Your task to perform on an android device: Clear all items from cart on bestbuy.com. Add "razer blade" to the cart on bestbuy.com Image 0: 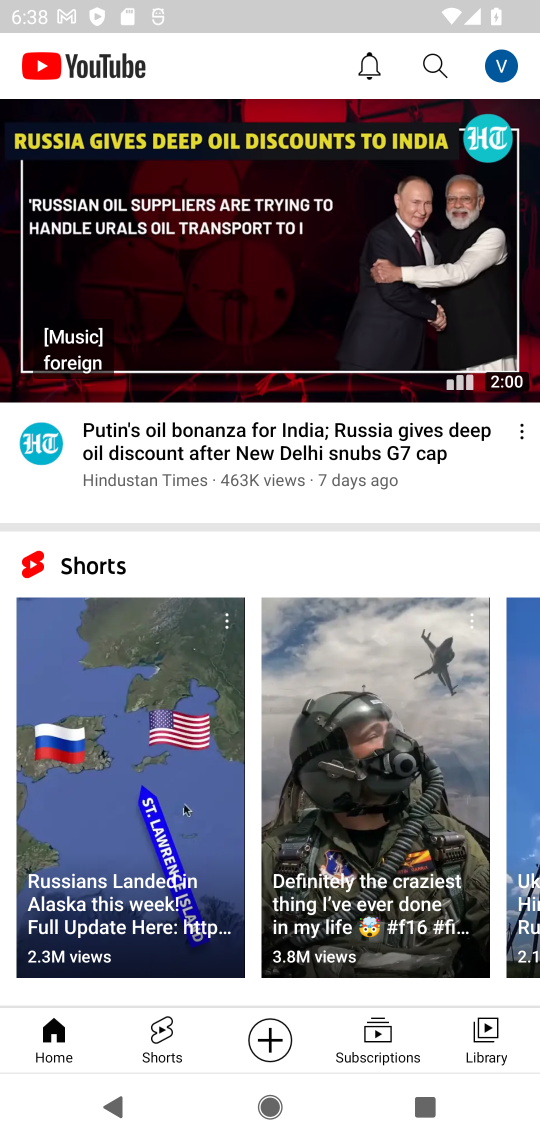
Step 0: press home button
Your task to perform on an android device: Clear all items from cart on bestbuy.com. Add "razer blade" to the cart on bestbuy.com Image 1: 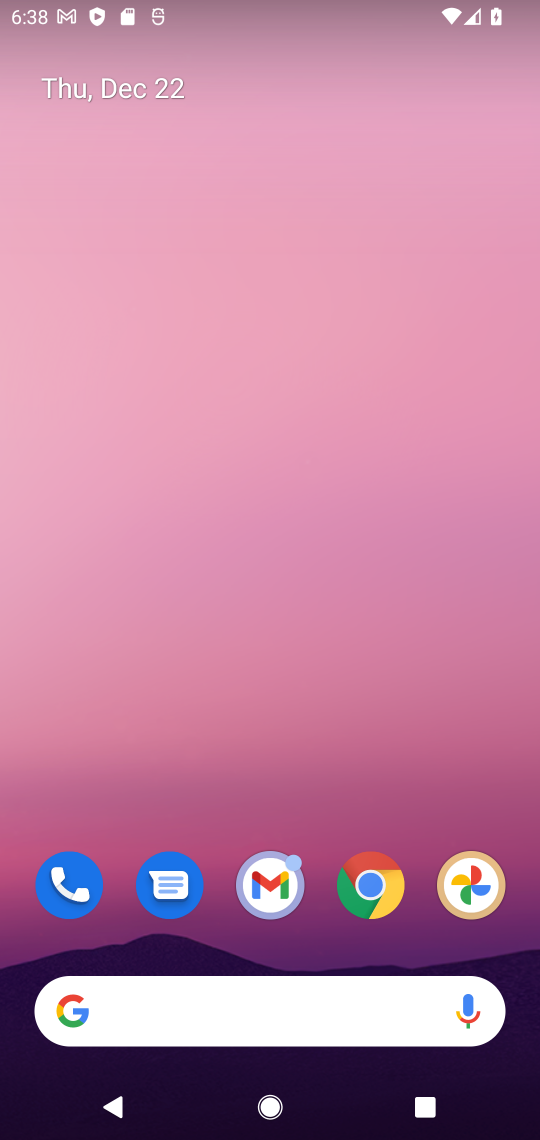
Step 1: click (375, 892)
Your task to perform on an android device: Clear all items from cart on bestbuy.com. Add "razer blade" to the cart on bestbuy.com Image 2: 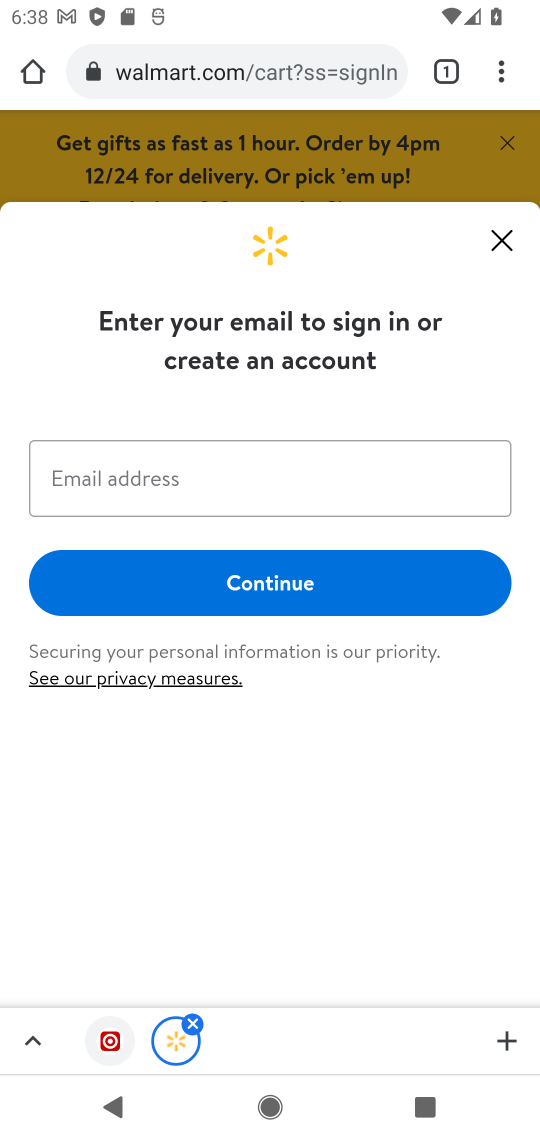
Step 2: click (191, 66)
Your task to perform on an android device: Clear all items from cart on bestbuy.com. Add "razer blade" to the cart on bestbuy.com Image 3: 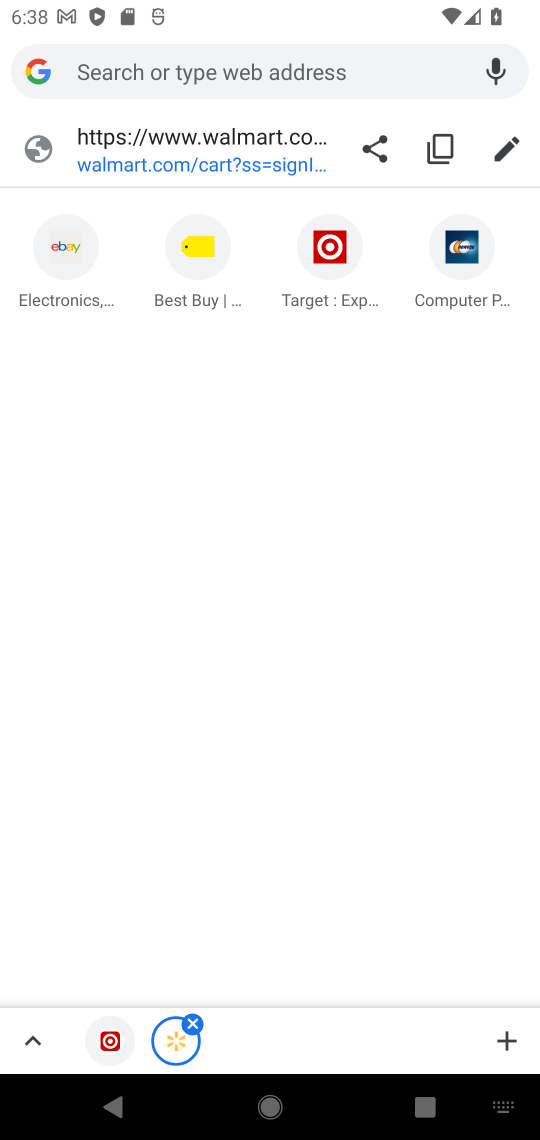
Step 3: click (181, 265)
Your task to perform on an android device: Clear all items from cart on bestbuy.com. Add "razer blade" to the cart on bestbuy.com Image 4: 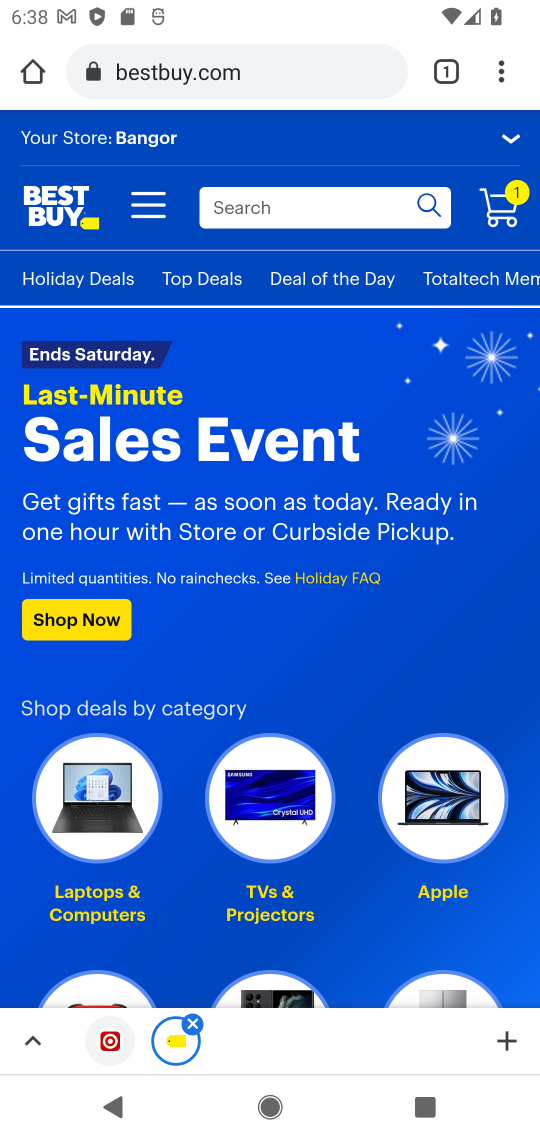
Step 4: click (496, 211)
Your task to perform on an android device: Clear all items from cart on bestbuy.com. Add "razer blade" to the cart on bestbuy.com Image 5: 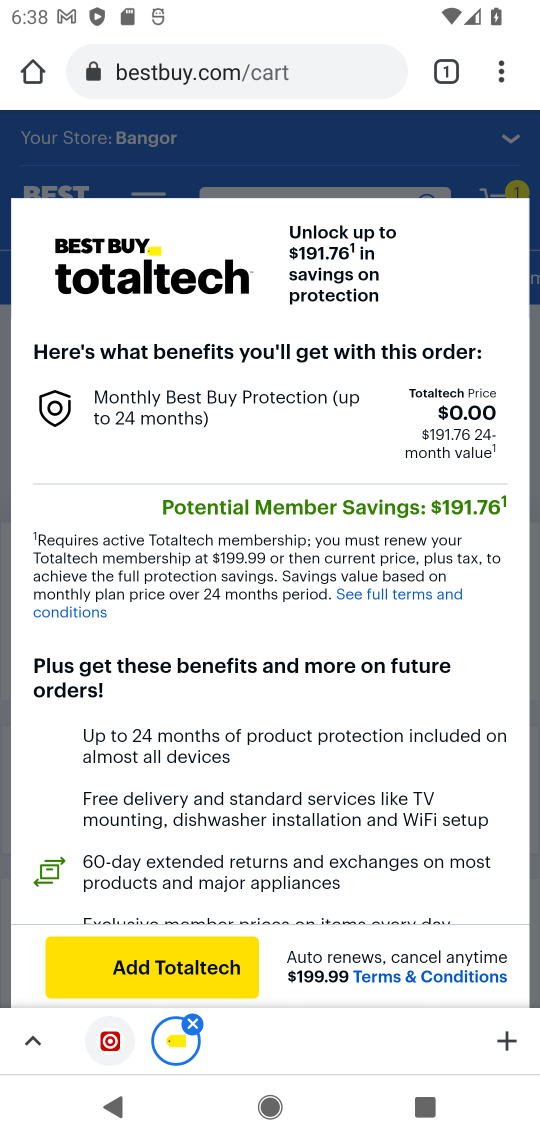
Step 5: drag from (227, 754) to (227, 546)
Your task to perform on an android device: Clear all items from cart on bestbuy.com. Add "razer blade" to the cart on bestbuy.com Image 6: 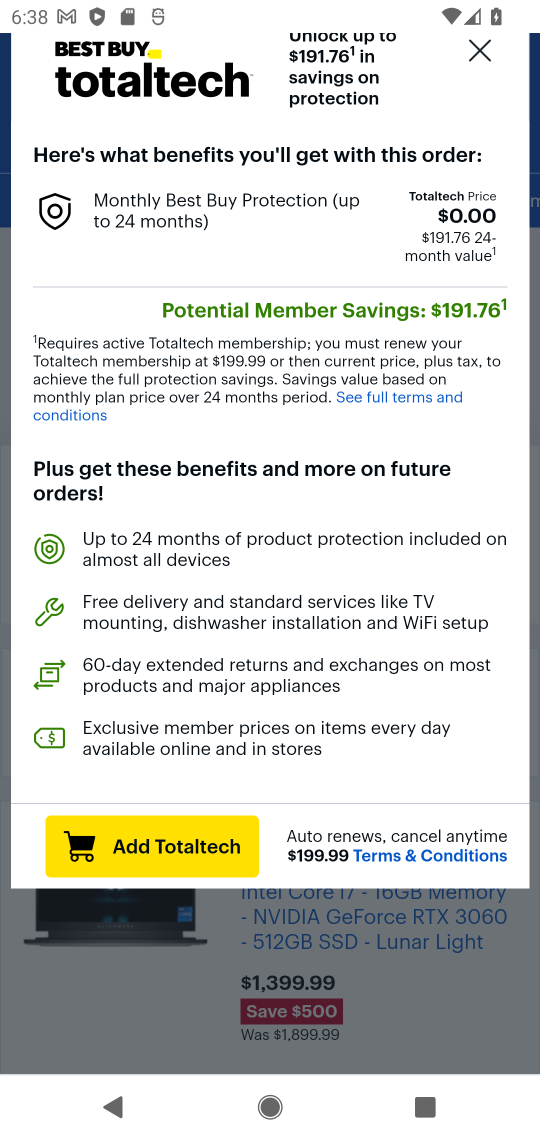
Step 6: click (473, 56)
Your task to perform on an android device: Clear all items from cart on bestbuy.com. Add "razer blade" to the cart on bestbuy.com Image 7: 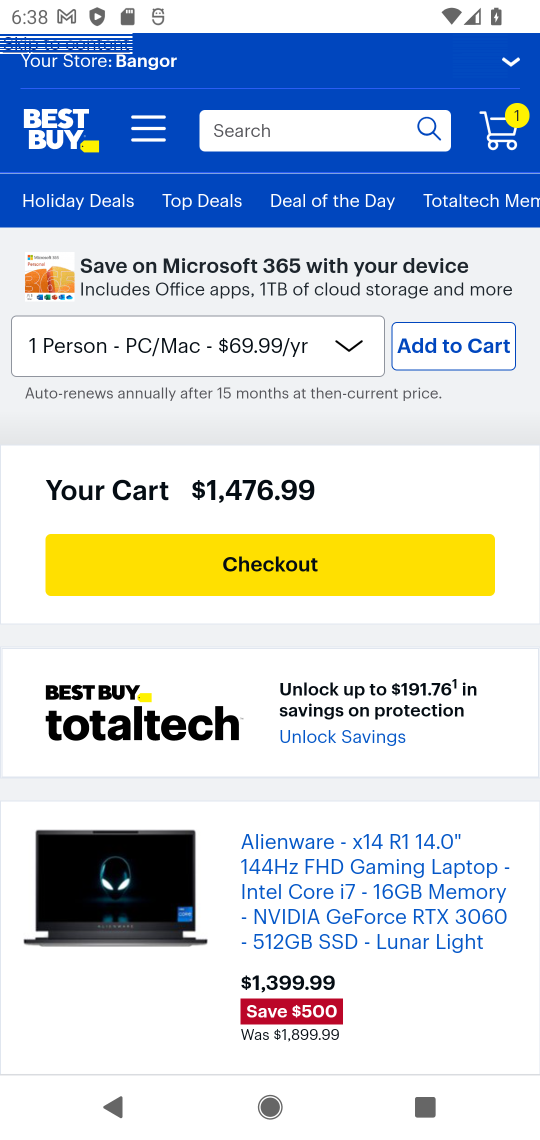
Step 7: drag from (308, 729) to (292, 341)
Your task to perform on an android device: Clear all items from cart on bestbuy.com. Add "razer blade" to the cart on bestbuy.com Image 8: 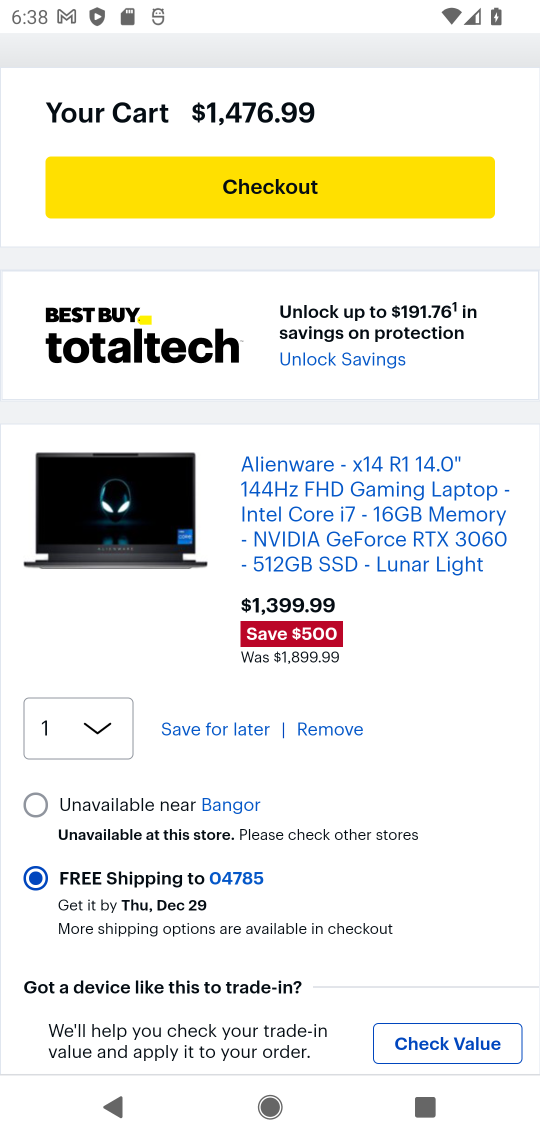
Step 8: click (320, 727)
Your task to perform on an android device: Clear all items from cart on bestbuy.com. Add "razer blade" to the cart on bestbuy.com Image 9: 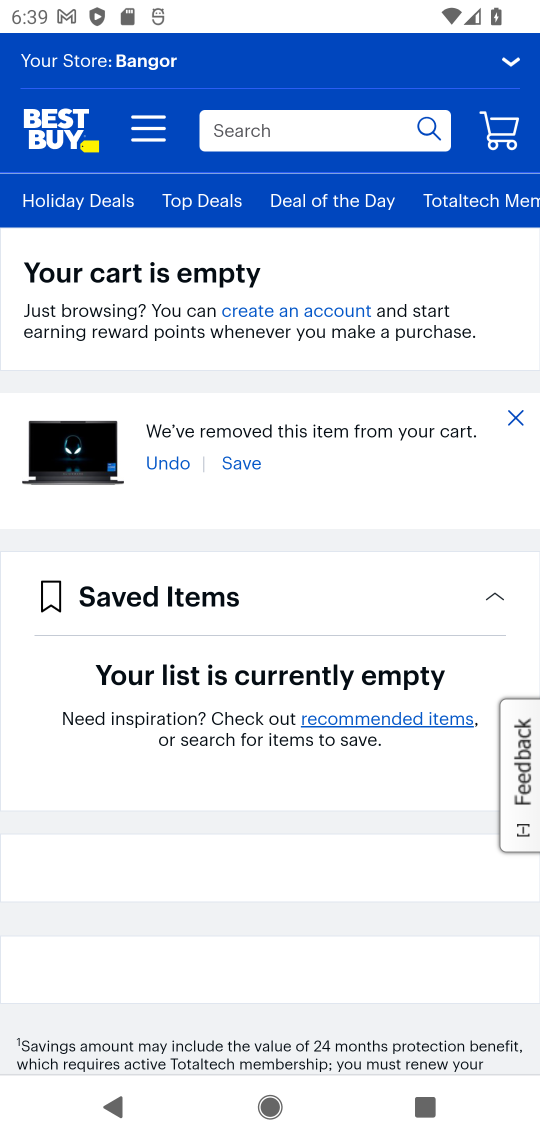
Step 9: click (230, 140)
Your task to perform on an android device: Clear all items from cart on bestbuy.com. Add "razer blade" to the cart on bestbuy.com Image 10: 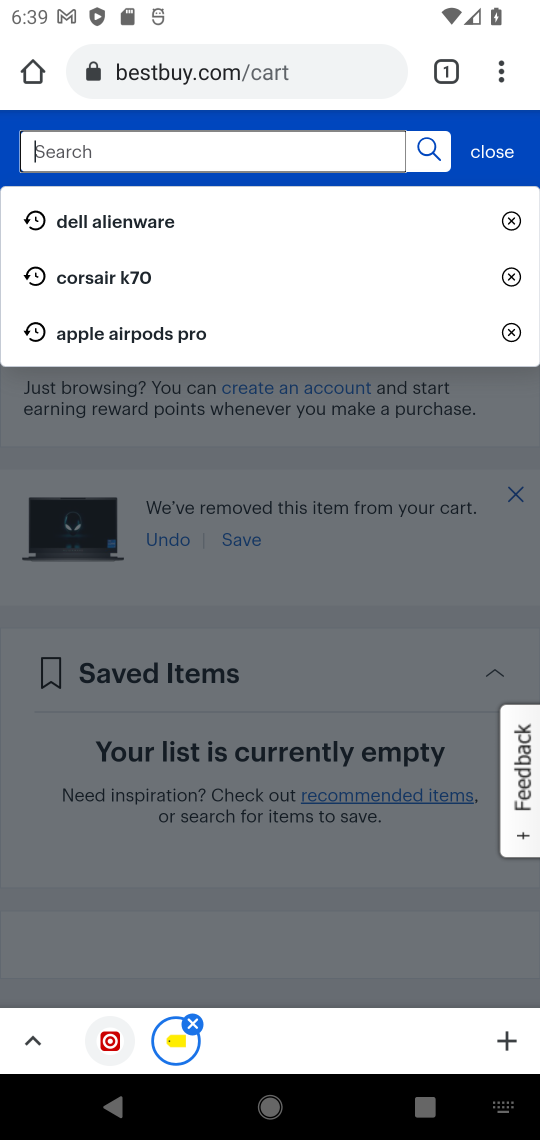
Step 10: type "razer blade"
Your task to perform on an android device: Clear all items from cart on bestbuy.com. Add "razer blade" to the cart on bestbuy.com Image 11: 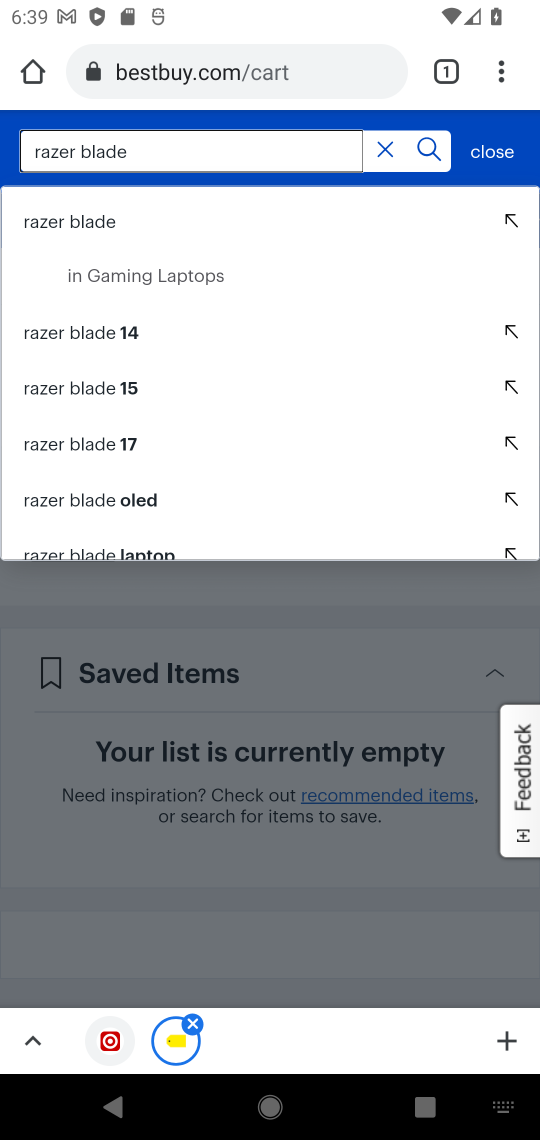
Step 11: click (47, 223)
Your task to perform on an android device: Clear all items from cart on bestbuy.com. Add "razer blade" to the cart on bestbuy.com Image 12: 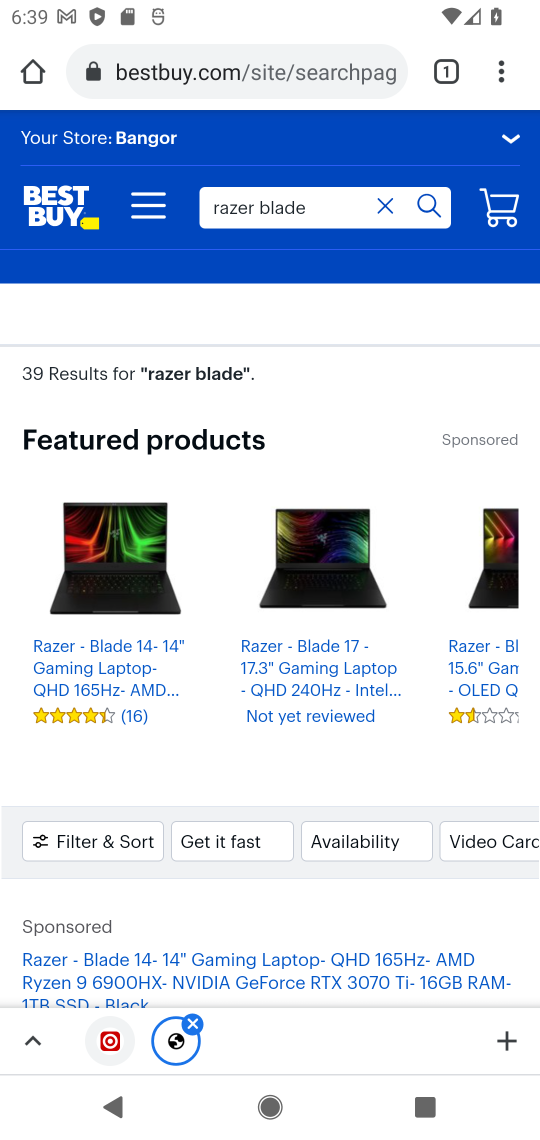
Step 12: drag from (199, 790) to (183, 136)
Your task to perform on an android device: Clear all items from cart on bestbuy.com. Add "razer blade" to the cart on bestbuy.com Image 13: 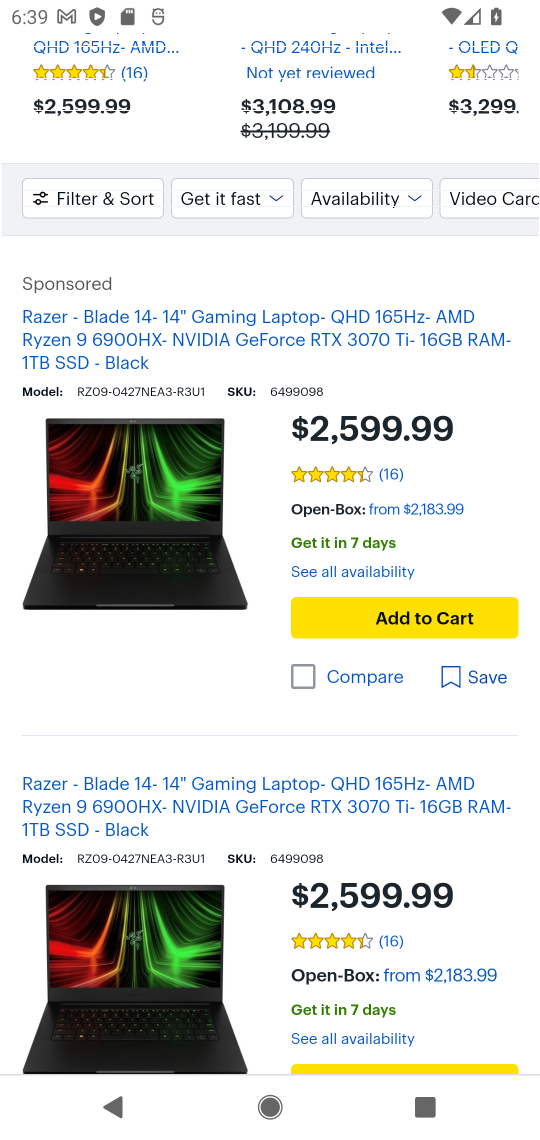
Step 13: click (353, 615)
Your task to perform on an android device: Clear all items from cart on bestbuy.com. Add "razer blade" to the cart on bestbuy.com Image 14: 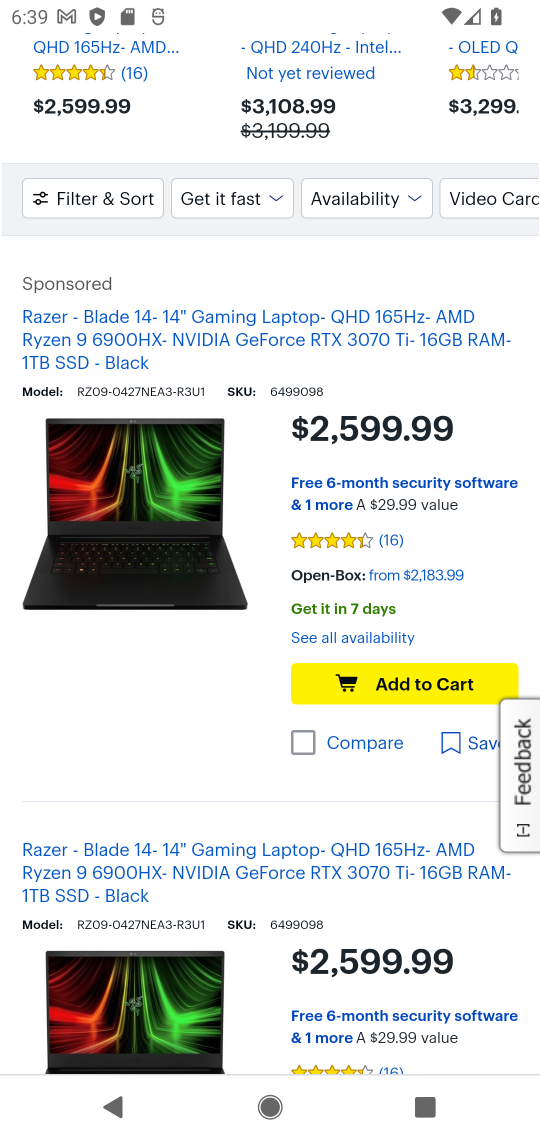
Step 14: click (419, 691)
Your task to perform on an android device: Clear all items from cart on bestbuy.com. Add "razer blade" to the cart on bestbuy.com Image 15: 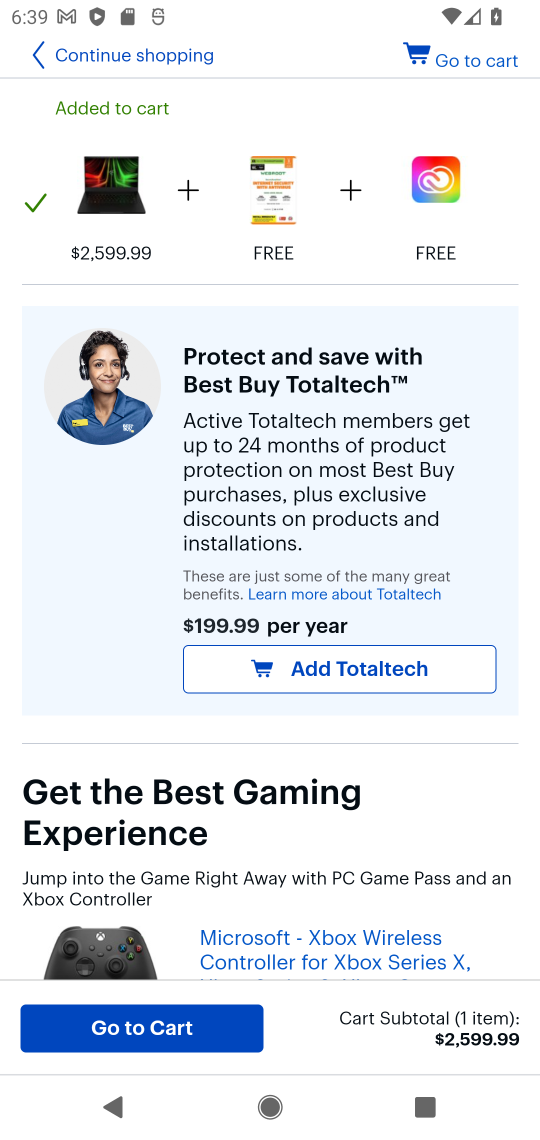
Step 15: task complete